Your task to perform on an android device: Open Reddit.com Image 0: 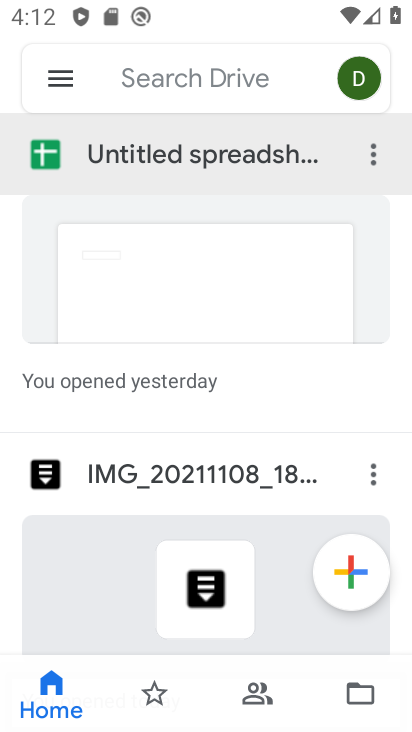
Step 0: press home button
Your task to perform on an android device: Open Reddit.com Image 1: 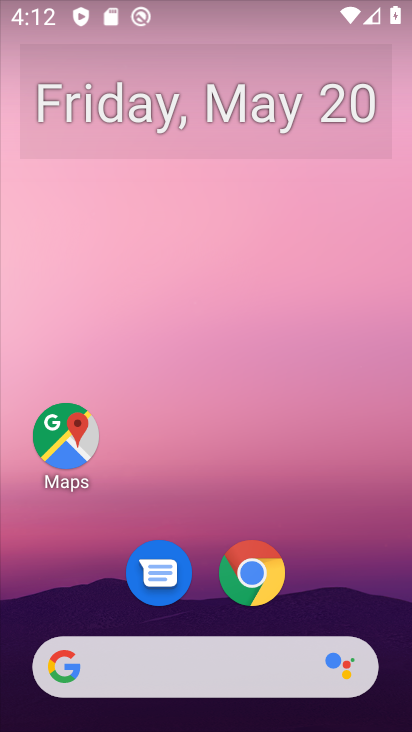
Step 1: click (256, 580)
Your task to perform on an android device: Open Reddit.com Image 2: 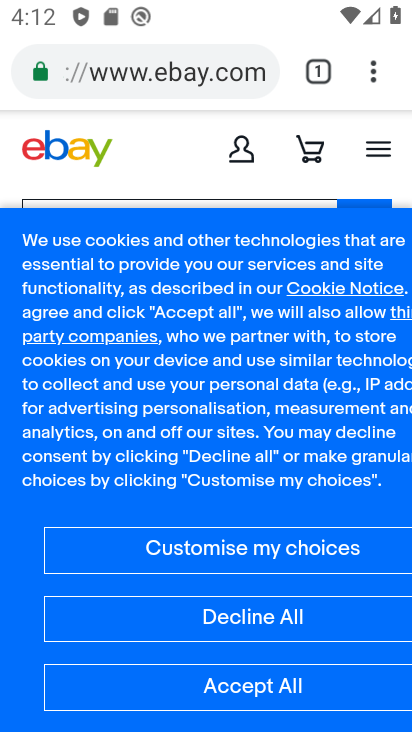
Step 2: click (122, 67)
Your task to perform on an android device: Open Reddit.com Image 3: 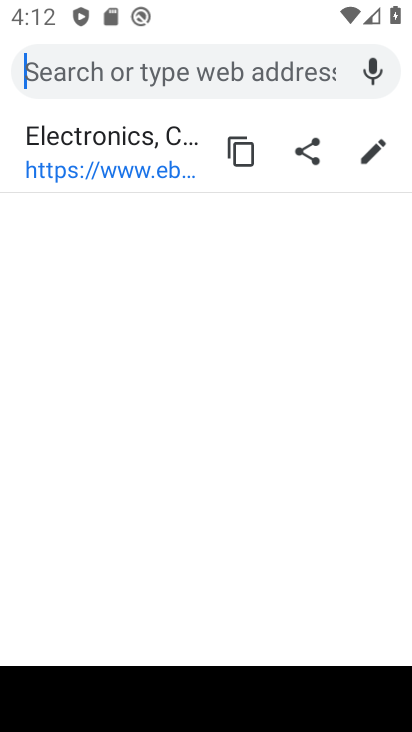
Step 3: type "Reddit.com"
Your task to perform on an android device: Open Reddit.com Image 4: 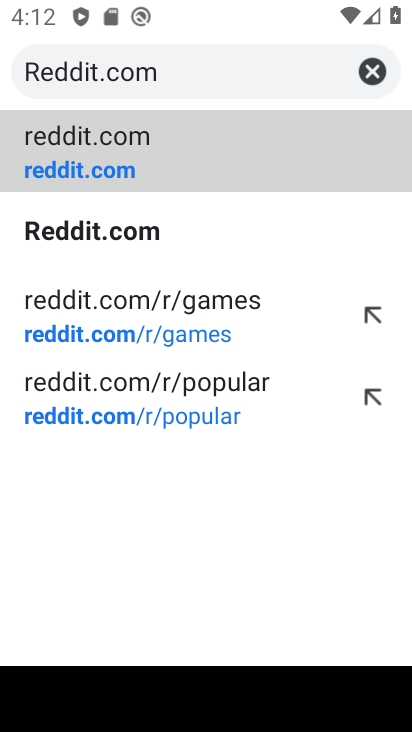
Step 4: click (110, 168)
Your task to perform on an android device: Open Reddit.com Image 5: 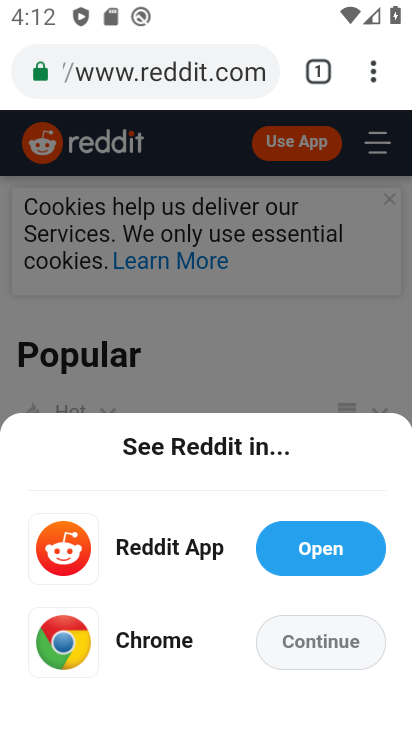
Step 5: click (282, 638)
Your task to perform on an android device: Open Reddit.com Image 6: 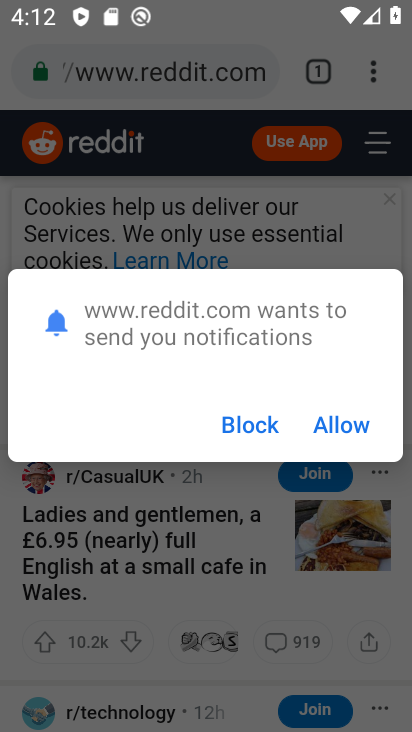
Step 6: click (245, 410)
Your task to perform on an android device: Open Reddit.com Image 7: 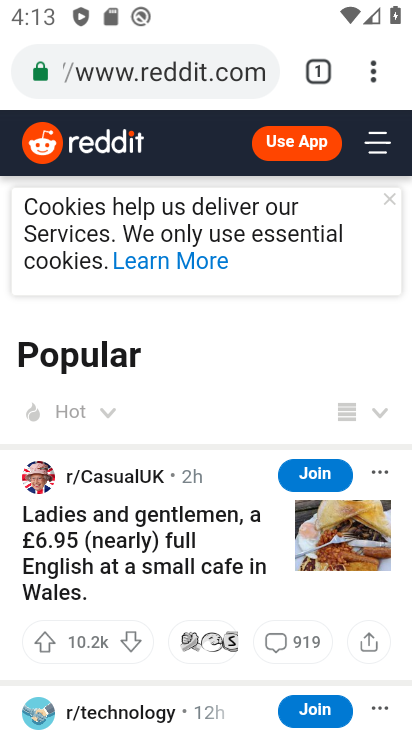
Step 7: task complete